Your task to perform on an android device: change your default location settings in chrome Image 0: 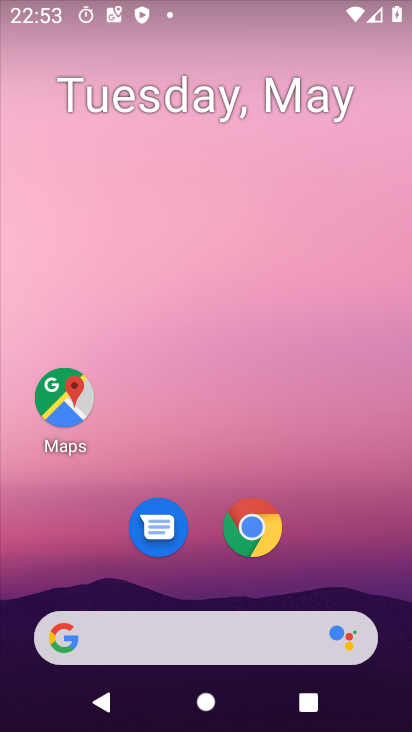
Step 0: drag from (192, 577) to (226, 156)
Your task to perform on an android device: change your default location settings in chrome Image 1: 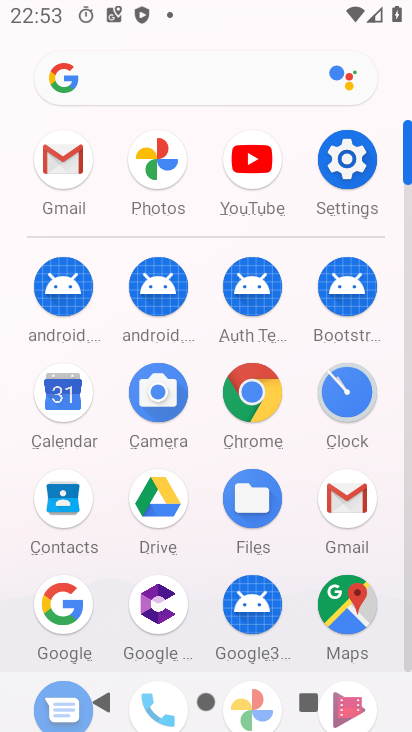
Step 1: click (242, 399)
Your task to perform on an android device: change your default location settings in chrome Image 2: 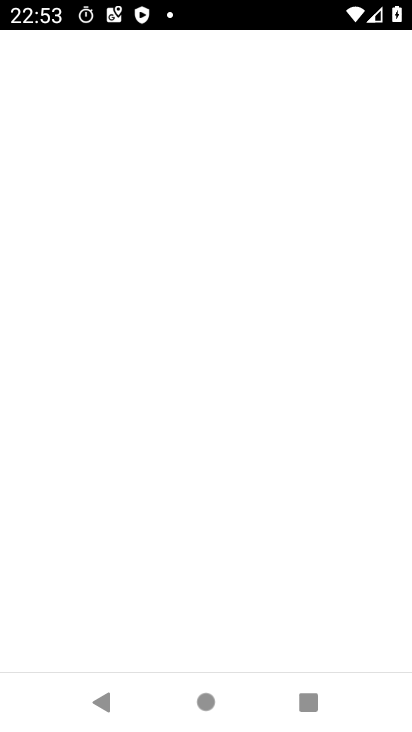
Step 2: drag from (179, 609) to (247, 232)
Your task to perform on an android device: change your default location settings in chrome Image 3: 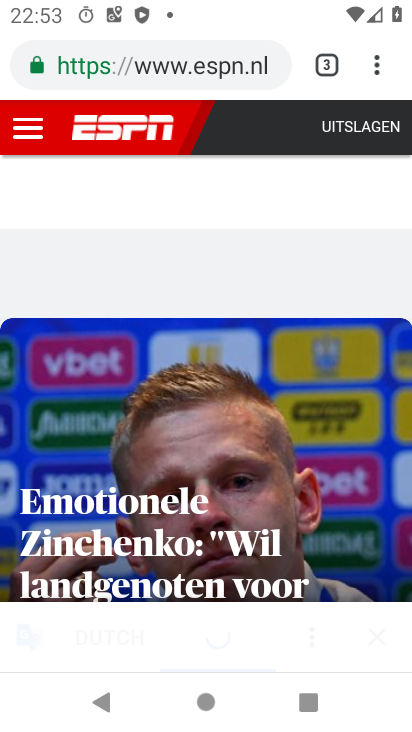
Step 3: drag from (224, 577) to (282, 233)
Your task to perform on an android device: change your default location settings in chrome Image 4: 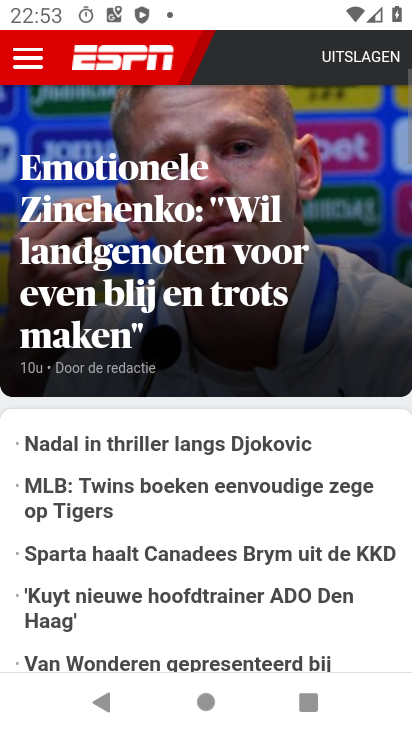
Step 4: drag from (252, 494) to (308, 273)
Your task to perform on an android device: change your default location settings in chrome Image 5: 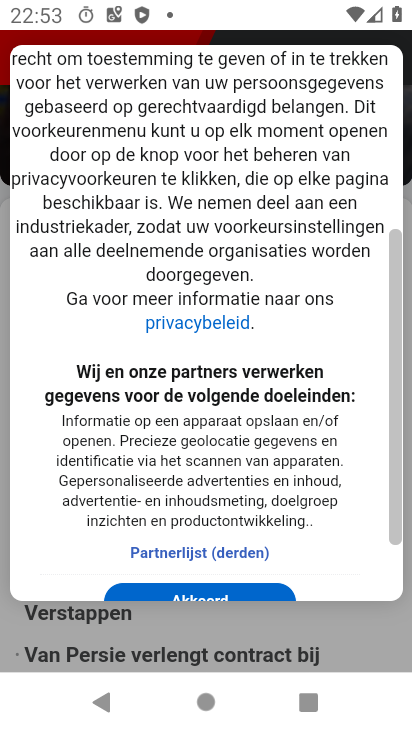
Step 5: drag from (238, 488) to (286, 249)
Your task to perform on an android device: change your default location settings in chrome Image 6: 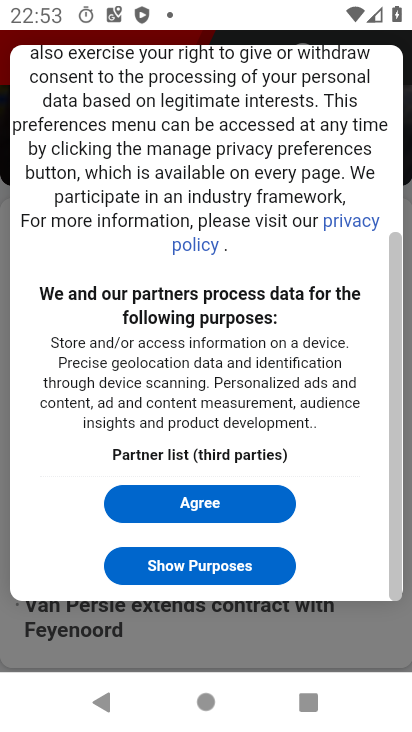
Step 6: drag from (258, 227) to (298, 585)
Your task to perform on an android device: change your default location settings in chrome Image 7: 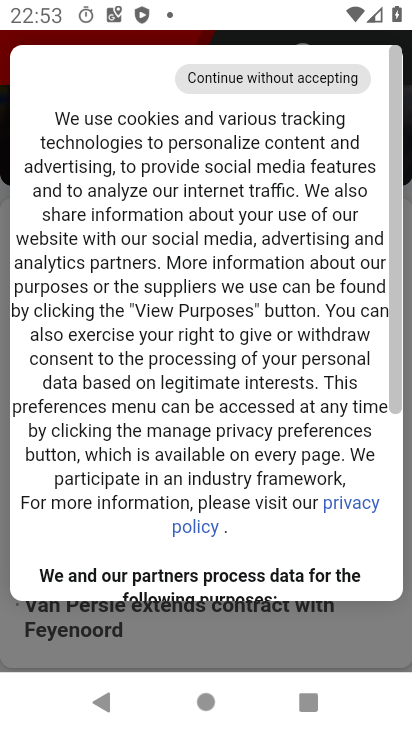
Step 7: drag from (213, 316) to (274, 655)
Your task to perform on an android device: change your default location settings in chrome Image 8: 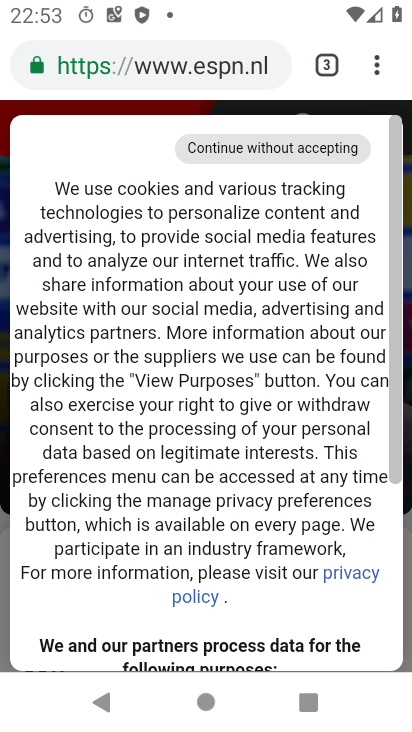
Step 8: drag from (379, 57) to (188, 589)
Your task to perform on an android device: change your default location settings in chrome Image 9: 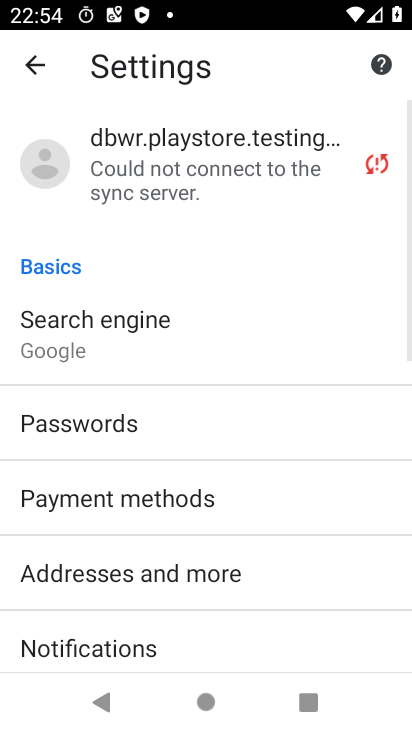
Step 9: drag from (171, 534) to (249, 250)
Your task to perform on an android device: change your default location settings in chrome Image 10: 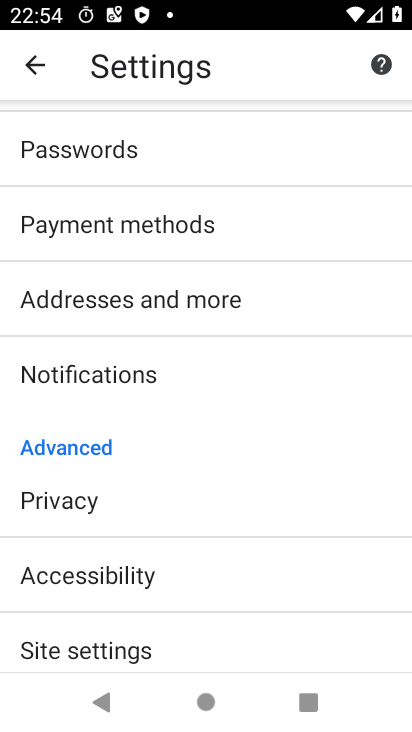
Step 10: click (105, 637)
Your task to perform on an android device: change your default location settings in chrome Image 11: 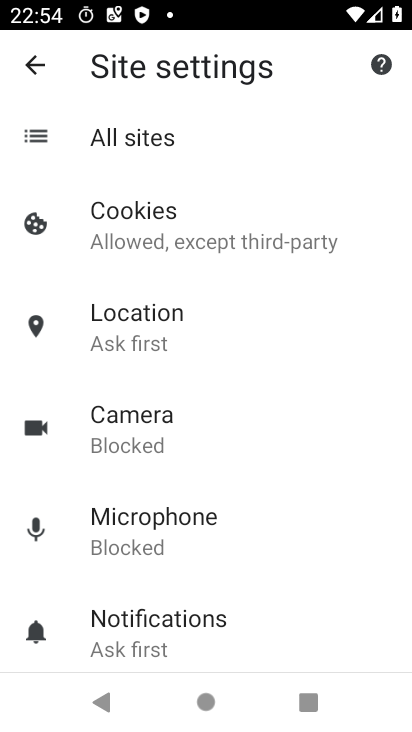
Step 11: click (170, 343)
Your task to perform on an android device: change your default location settings in chrome Image 12: 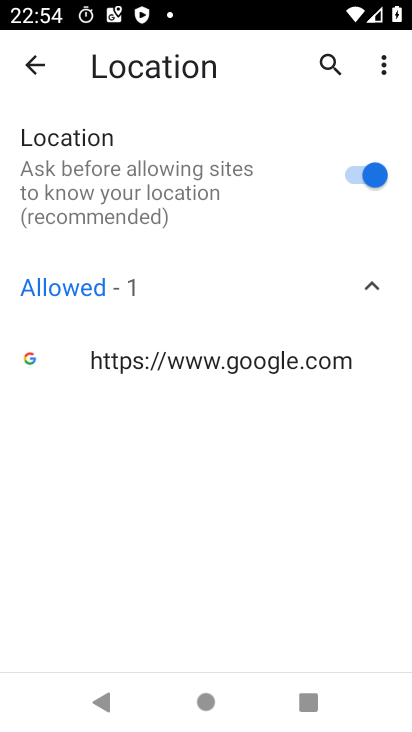
Step 12: drag from (196, 513) to (265, 284)
Your task to perform on an android device: change your default location settings in chrome Image 13: 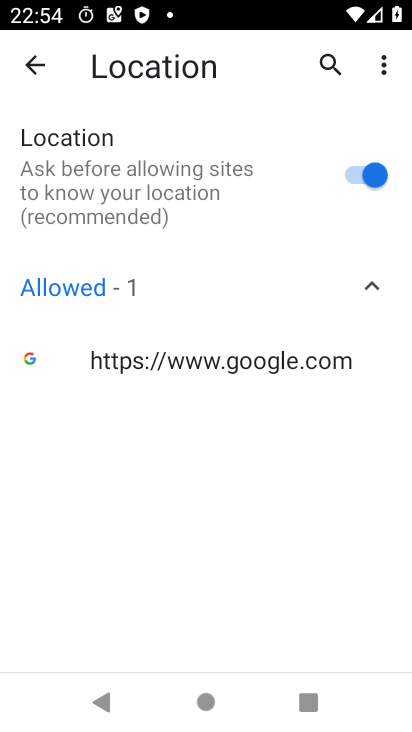
Step 13: drag from (190, 589) to (254, 288)
Your task to perform on an android device: change your default location settings in chrome Image 14: 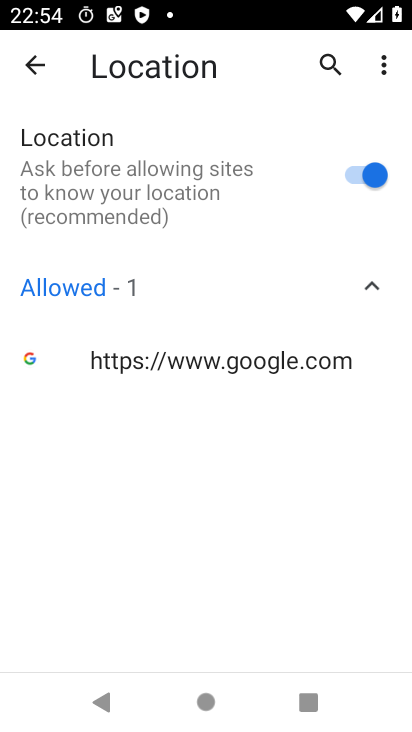
Step 14: click (367, 161)
Your task to perform on an android device: change your default location settings in chrome Image 15: 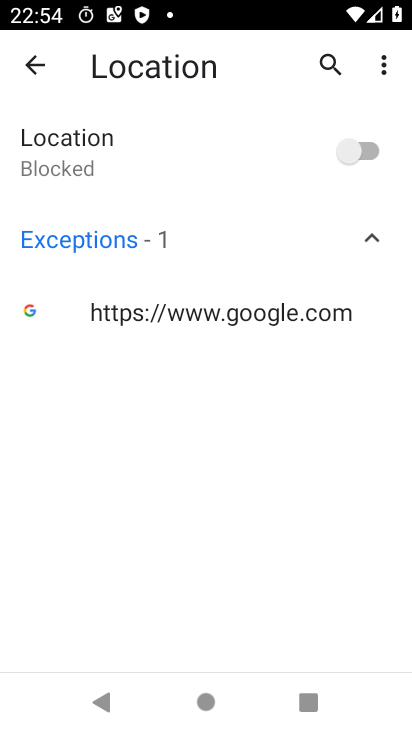
Step 15: task complete